Your task to perform on an android device: What's the weather going to be this weekend? Image 0: 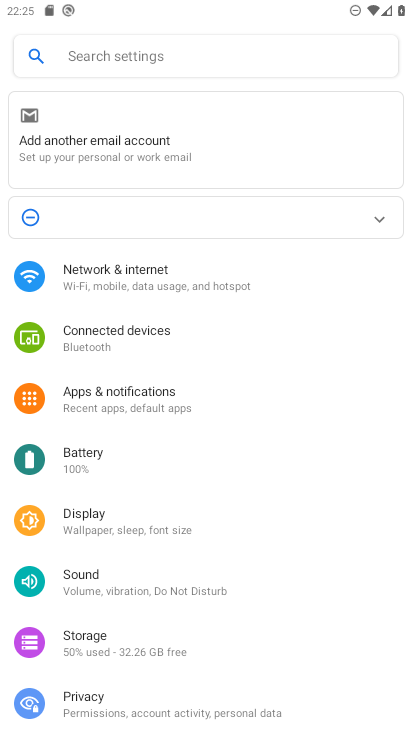
Step 0: press home button
Your task to perform on an android device: What's the weather going to be this weekend? Image 1: 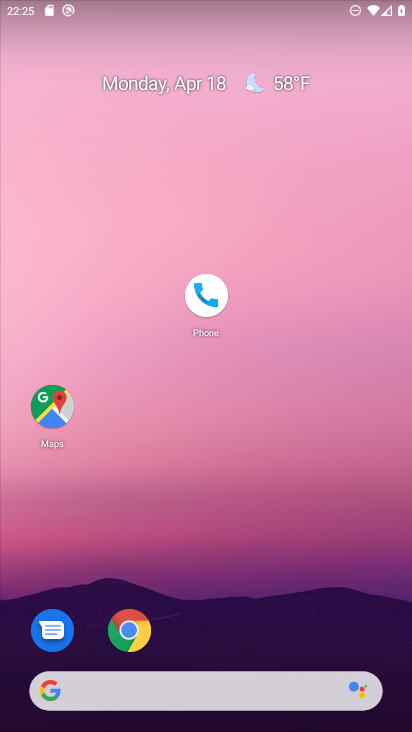
Step 1: click (294, 83)
Your task to perform on an android device: What's the weather going to be this weekend? Image 2: 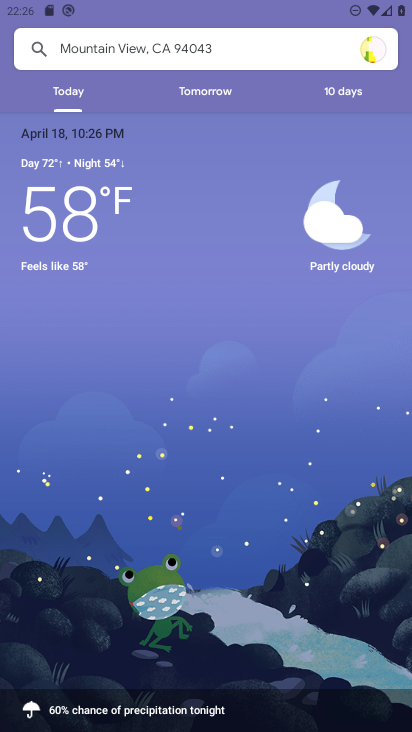
Step 2: click (351, 93)
Your task to perform on an android device: What's the weather going to be this weekend? Image 3: 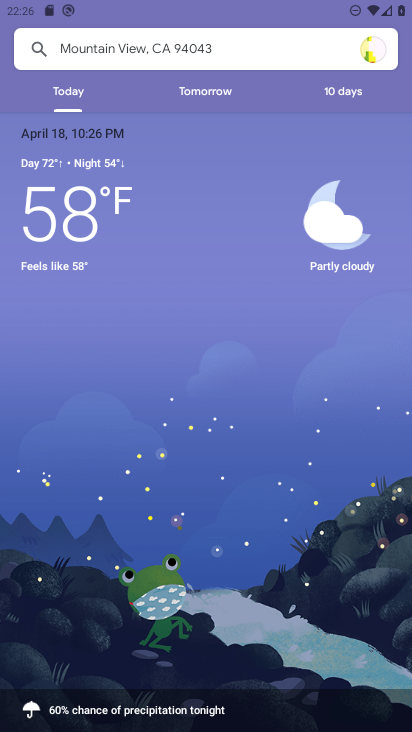
Step 3: click (355, 97)
Your task to perform on an android device: What's the weather going to be this weekend? Image 4: 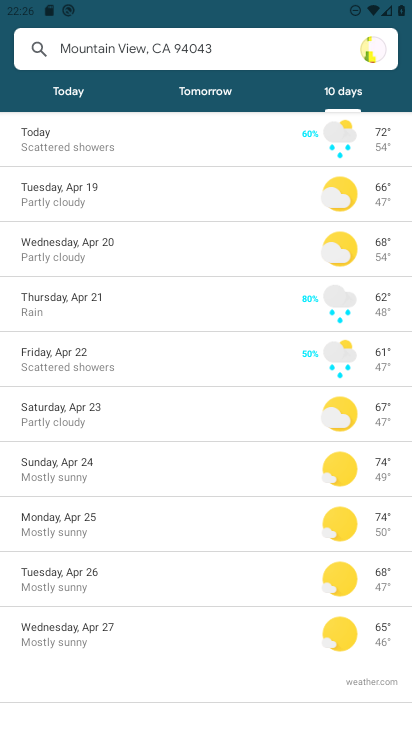
Step 4: task complete